Your task to perform on an android device: delete a single message in the gmail app Image 0: 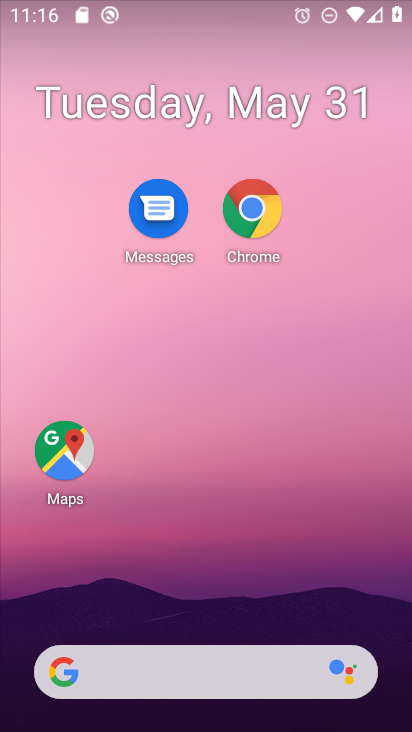
Step 0: drag from (221, 632) to (234, 37)
Your task to perform on an android device: delete a single message in the gmail app Image 1: 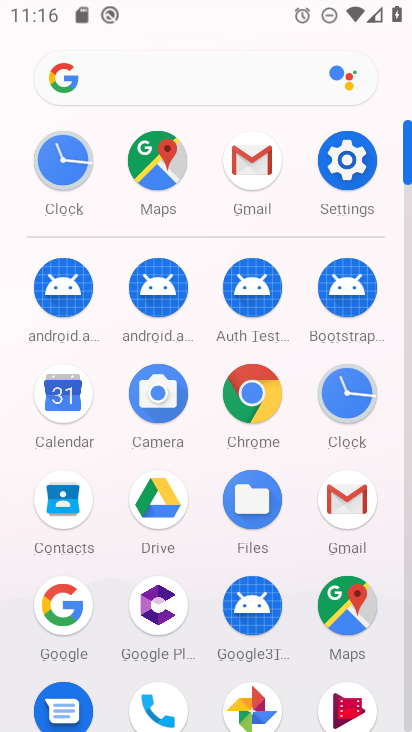
Step 1: click (344, 491)
Your task to perform on an android device: delete a single message in the gmail app Image 2: 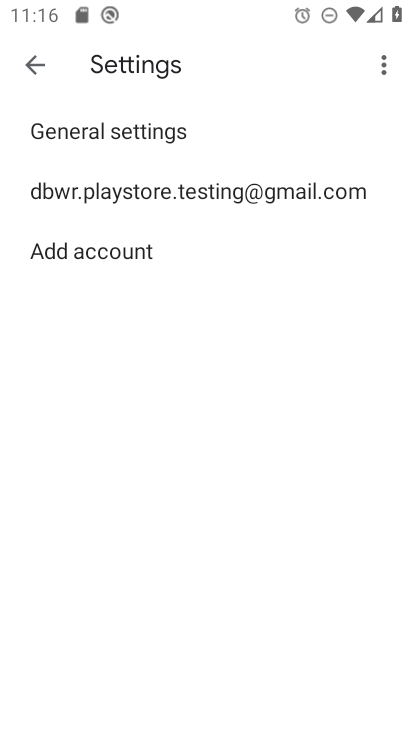
Step 2: click (31, 66)
Your task to perform on an android device: delete a single message in the gmail app Image 3: 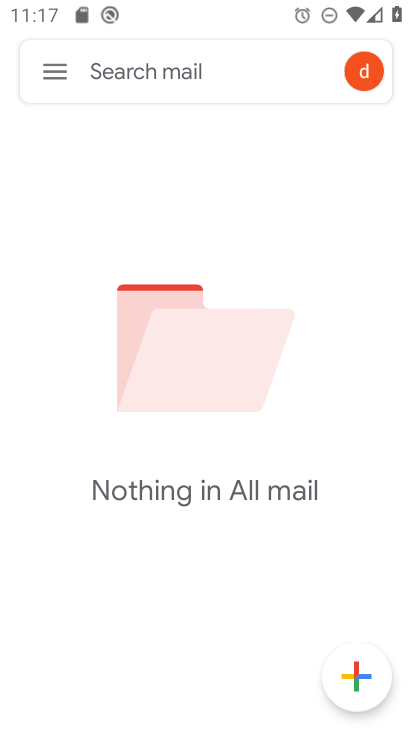
Step 3: task complete